Your task to perform on an android device: Go to CNN.com Image 0: 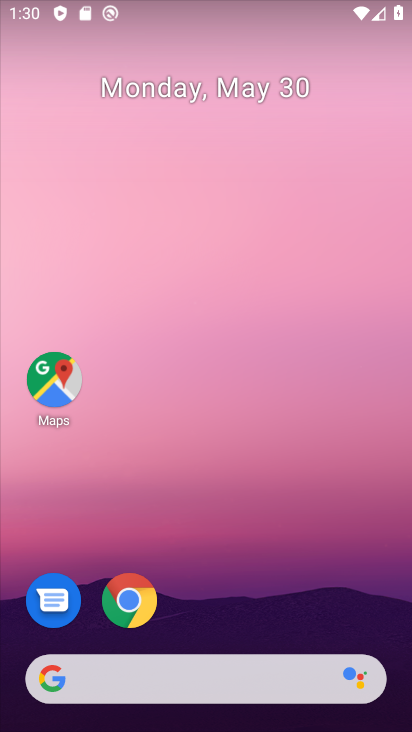
Step 0: click (141, 607)
Your task to perform on an android device: Go to CNN.com Image 1: 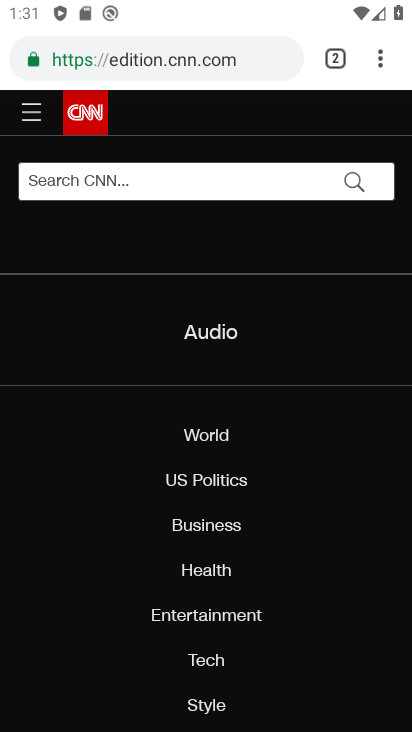
Step 1: task complete